Your task to perform on an android device: check storage Image 0: 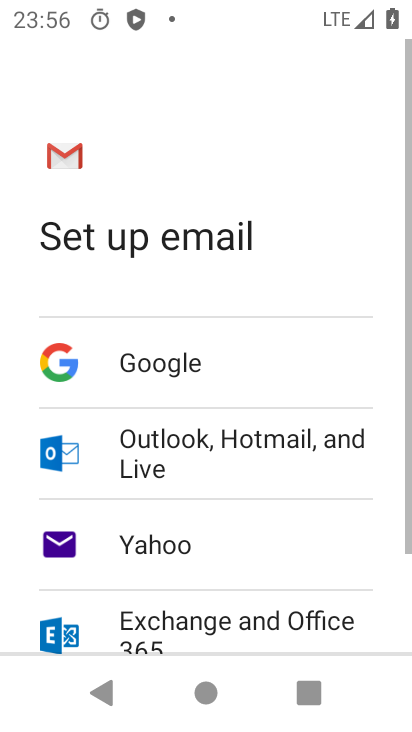
Step 0: press home button
Your task to perform on an android device: check storage Image 1: 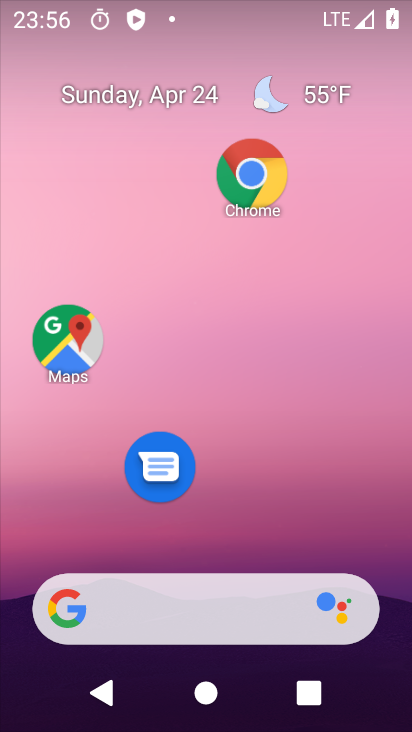
Step 1: drag from (227, 521) to (271, 1)
Your task to perform on an android device: check storage Image 2: 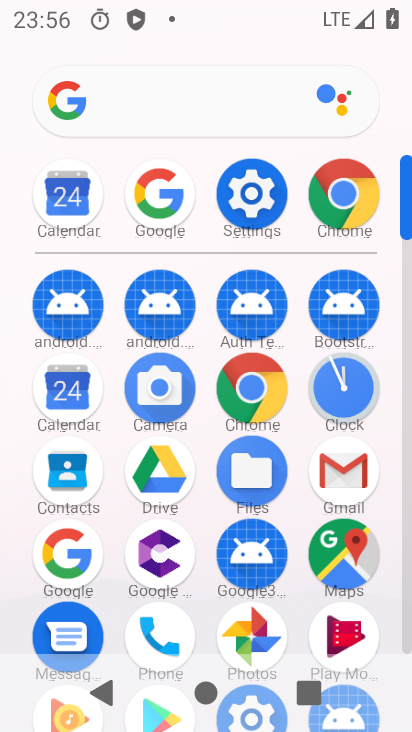
Step 2: click (249, 204)
Your task to perform on an android device: check storage Image 3: 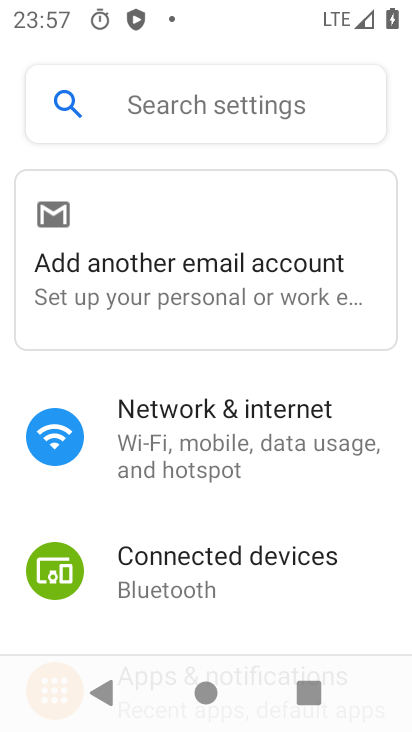
Step 3: drag from (291, 545) to (268, 73)
Your task to perform on an android device: check storage Image 4: 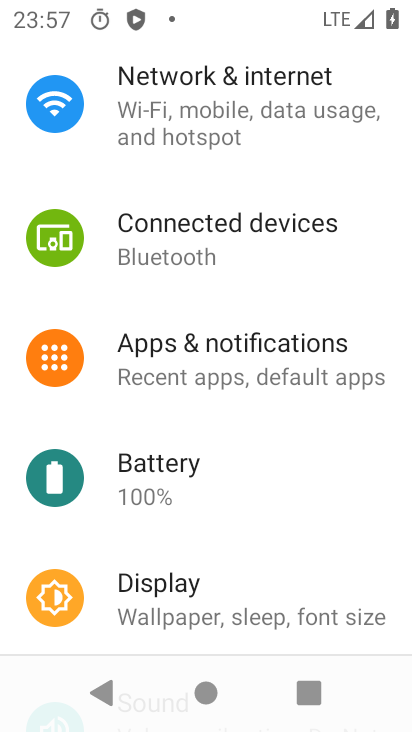
Step 4: drag from (215, 468) to (244, 122)
Your task to perform on an android device: check storage Image 5: 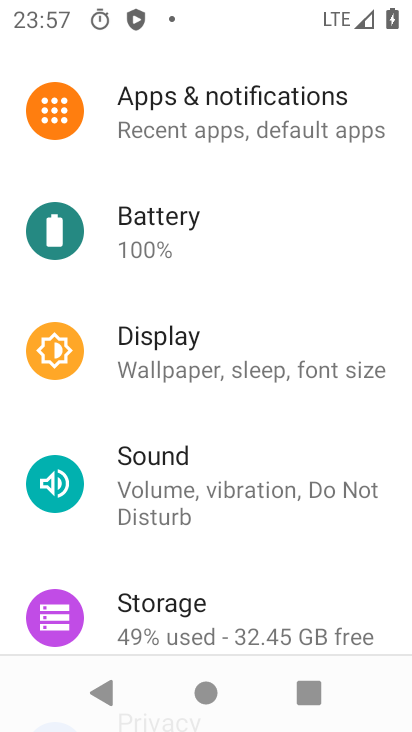
Step 5: click (196, 611)
Your task to perform on an android device: check storage Image 6: 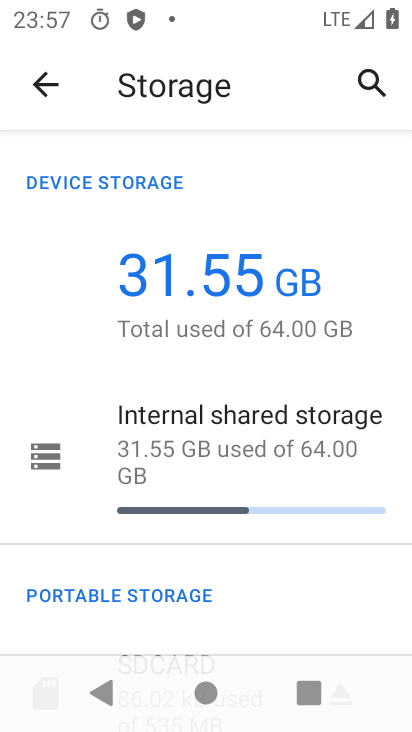
Step 6: task complete